Your task to perform on an android device: Open sound settings Image 0: 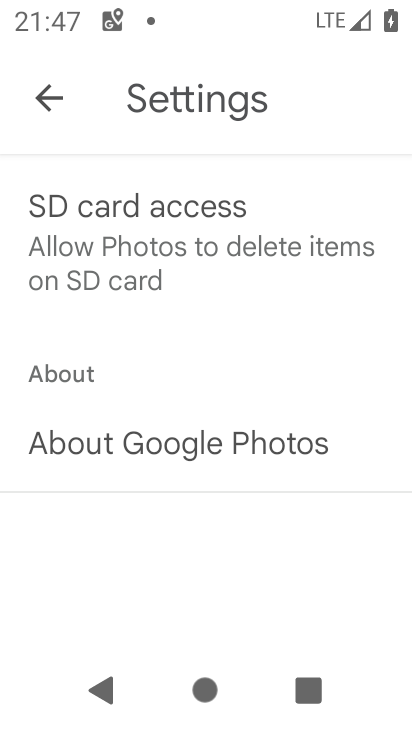
Step 0: drag from (236, 566) to (308, 3)
Your task to perform on an android device: Open sound settings Image 1: 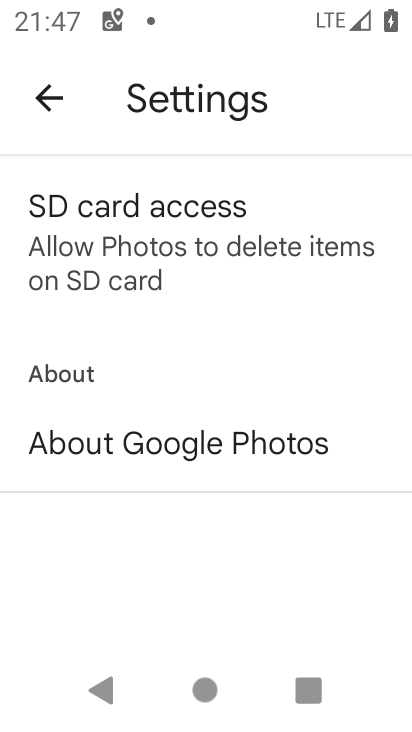
Step 1: drag from (237, 558) to (308, 93)
Your task to perform on an android device: Open sound settings Image 2: 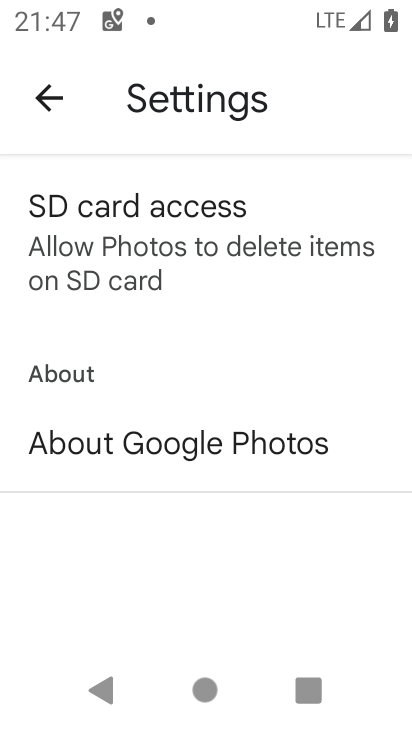
Step 2: press home button
Your task to perform on an android device: Open sound settings Image 3: 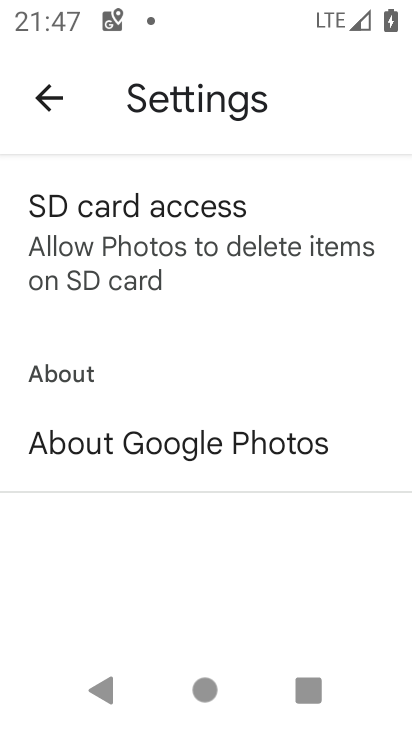
Step 3: drag from (140, 561) to (217, 201)
Your task to perform on an android device: Open sound settings Image 4: 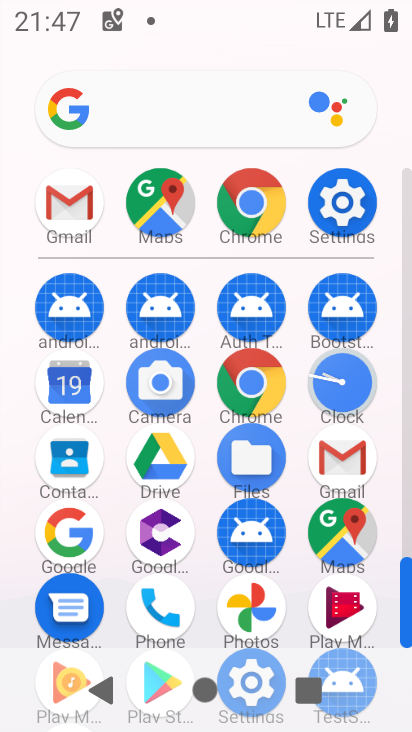
Step 4: click (328, 181)
Your task to perform on an android device: Open sound settings Image 5: 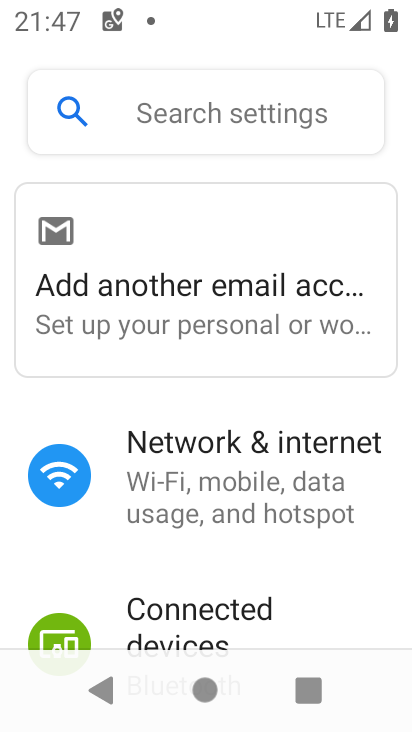
Step 5: drag from (245, 543) to (318, 29)
Your task to perform on an android device: Open sound settings Image 6: 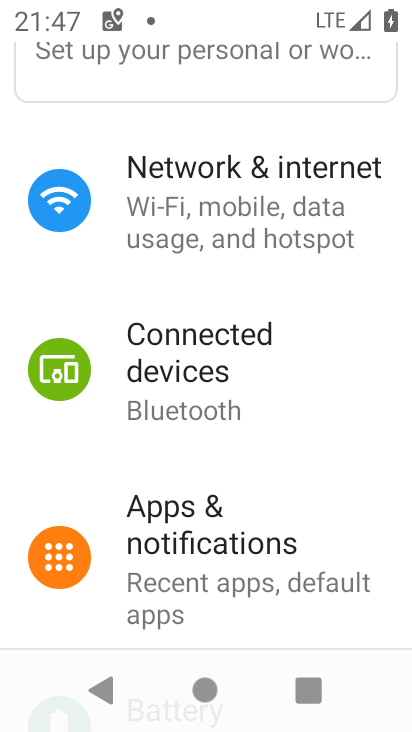
Step 6: drag from (271, 556) to (298, 68)
Your task to perform on an android device: Open sound settings Image 7: 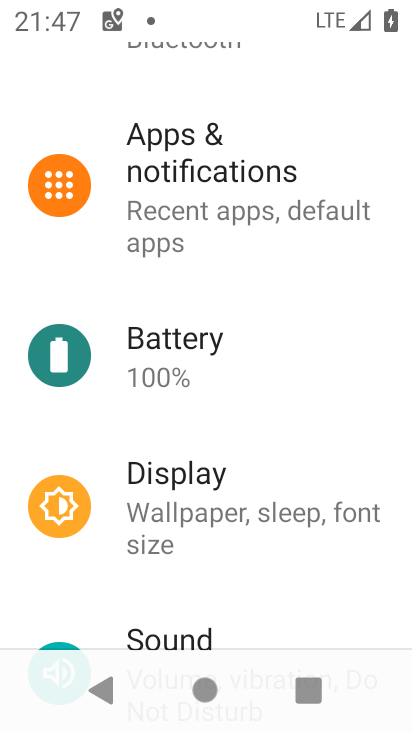
Step 7: drag from (228, 574) to (262, 142)
Your task to perform on an android device: Open sound settings Image 8: 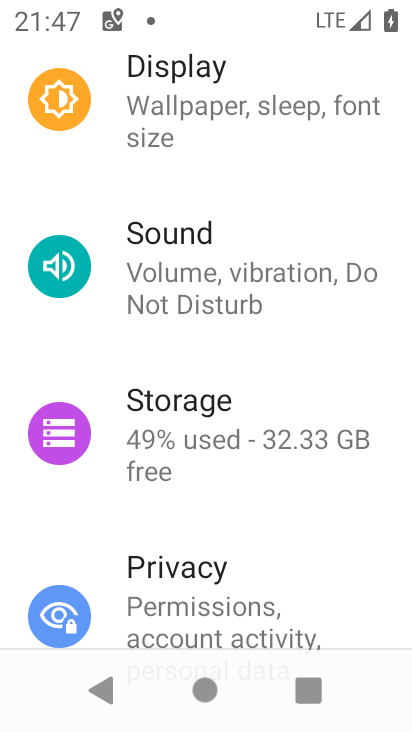
Step 8: click (191, 291)
Your task to perform on an android device: Open sound settings Image 9: 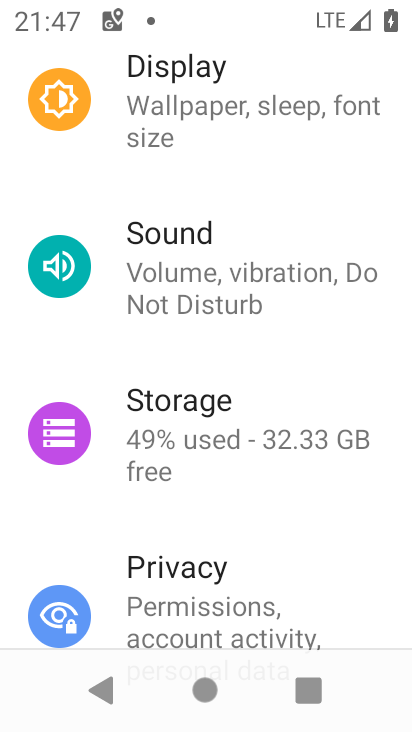
Step 9: click (191, 291)
Your task to perform on an android device: Open sound settings Image 10: 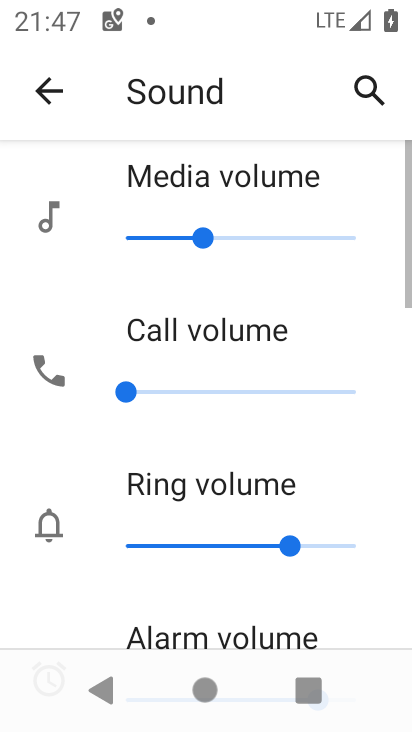
Step 10: task complete